Your task to perform on an android device: When is my next appointment? Image 0: 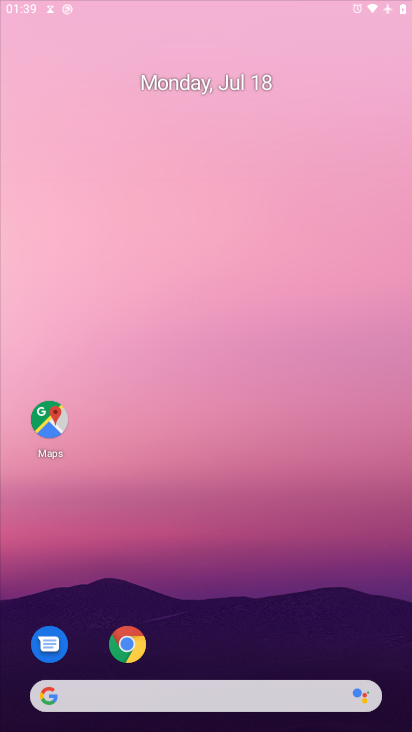
Step 0: press home button
Your task to perform on an android device: When is my next appointment? Image 1: 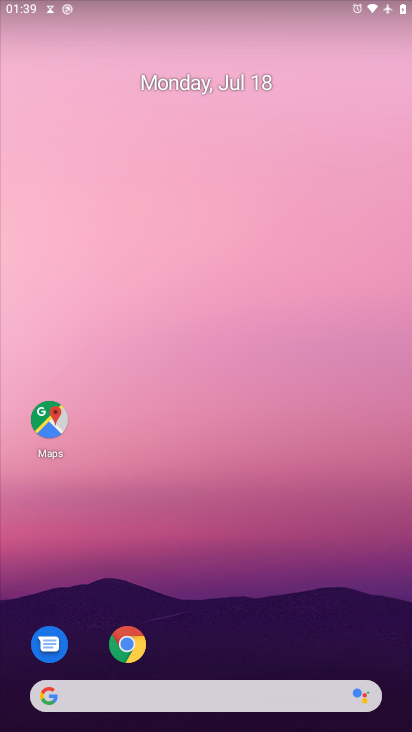
Step 1: drag from (268, 627) to (289, 39)
Your task to perform on an android device: When is my next appointment? Image 2: 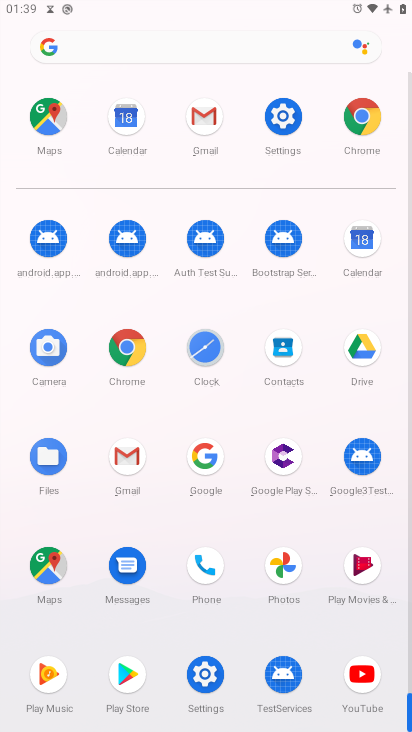
Step 2: click (361, 250)
Your task to perform on an android device: When is my next appointment? Image 3: 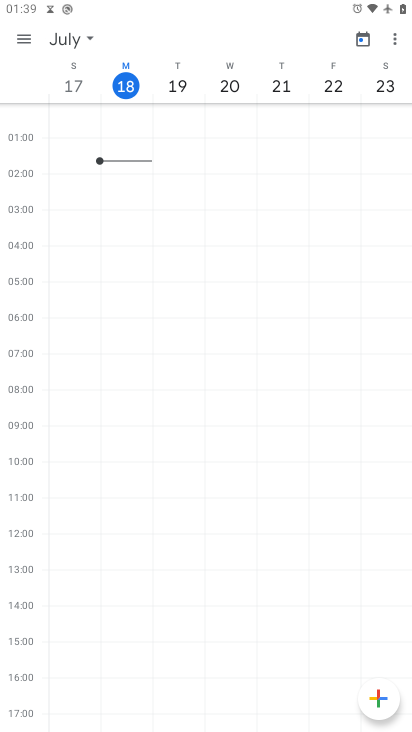
Step 3: click (21, 34)
Your task to perform on an android device: When is my next appointment? Image 4: 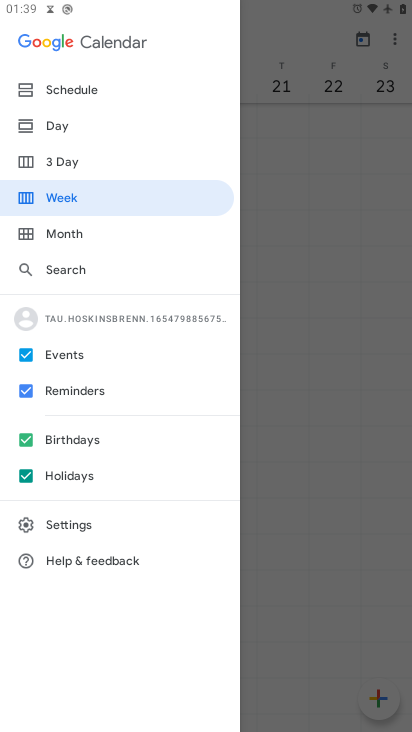
Step 4: click (77, 97)
Your task to perform on an android device: When is my next appointment? Image 5: 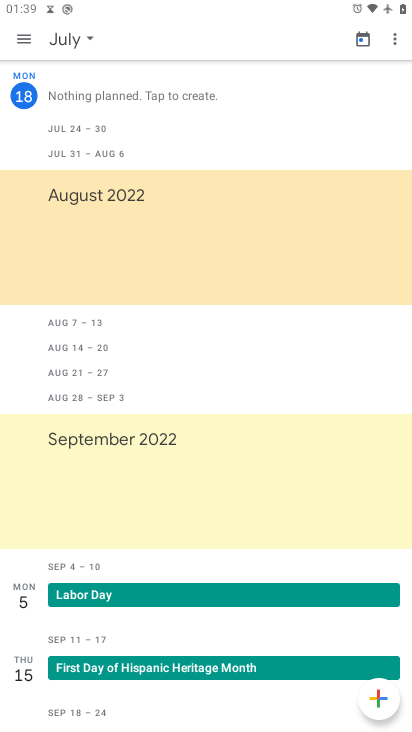
Step 5: task complete